Your task to perform on an android device: Open my contact list Image 0: 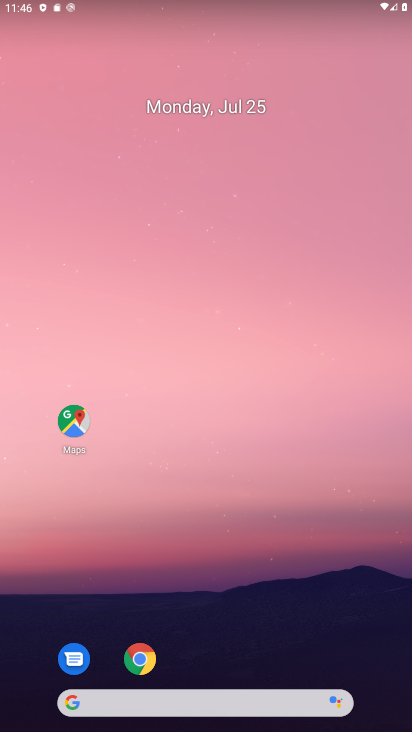
Step 0: press home button
Your task to perform on an android device: Open my contact list Image 1: 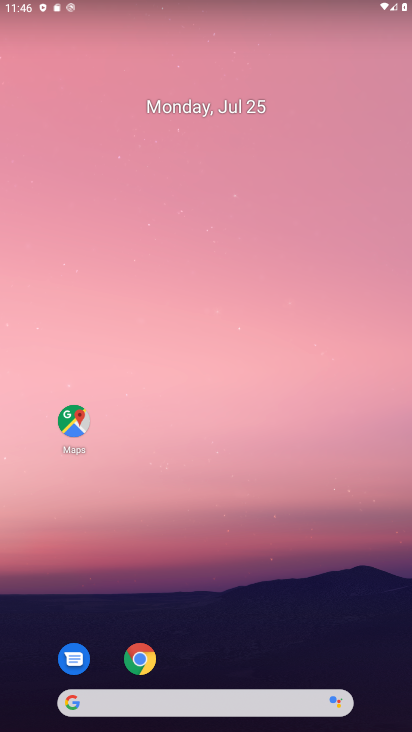
Step 1: click (188, 71)
Your task to perform on an android device: Open my contact list Image 2: 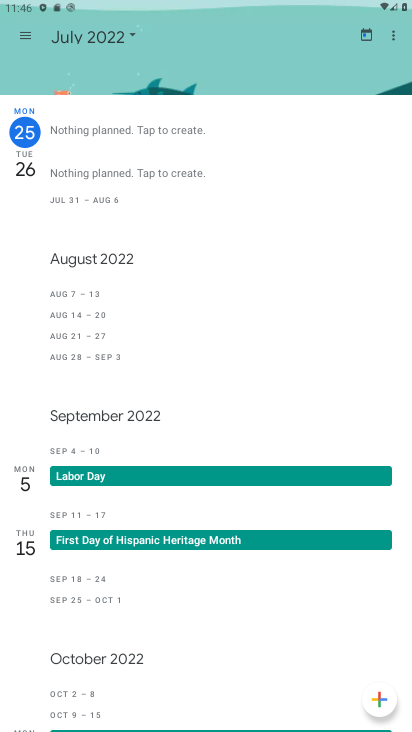
Step 2: press home button
Your task to perform on an android device: Open my contact list Image 3: 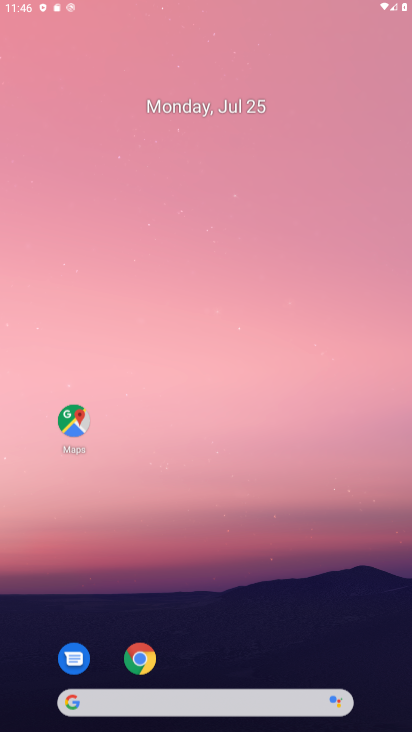
Step 3: drag from (279, 695) to (3, 99)
Your task to perform on an android device: Open my contact list Image 4: 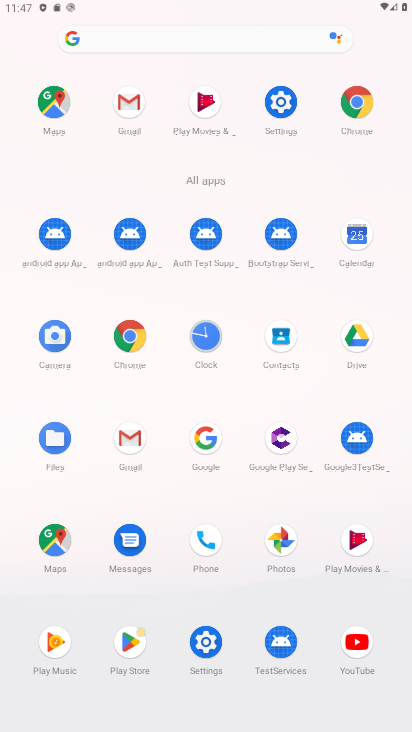
Step 4: click (294, 342)
Your task to perform on an android device: Open my contact list Image 5: 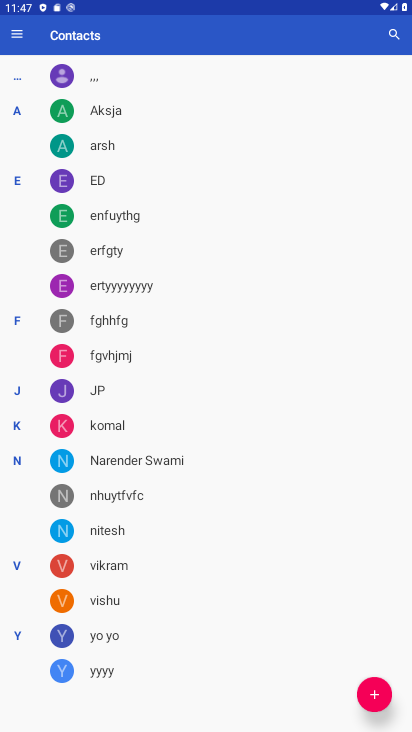
Step 5: task complete